Your task to perform on an android device: Open Chrome and go to settings Image 0: 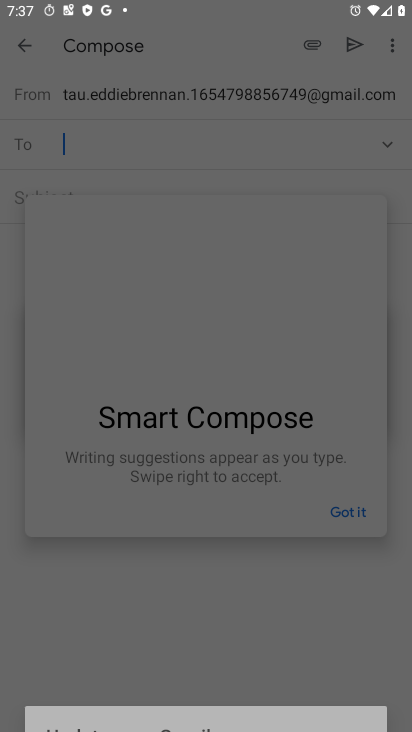
Step 0: press home button
Your task to perform on an android device: Open Chrome and go to settings Image 1: 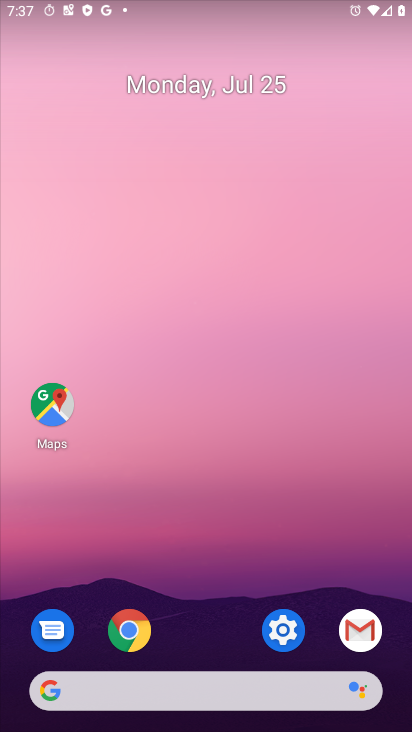
Step 1: click (133, 630)
Your task to perform on an android device: Open Chrome and go to settings Image 2: 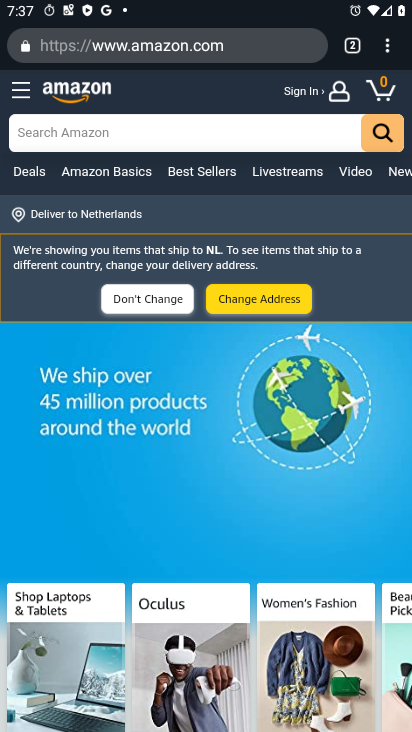
Step 2: click (387, 51)
Your task to perform on an android device: Open Chrome and go to settings Image 3: 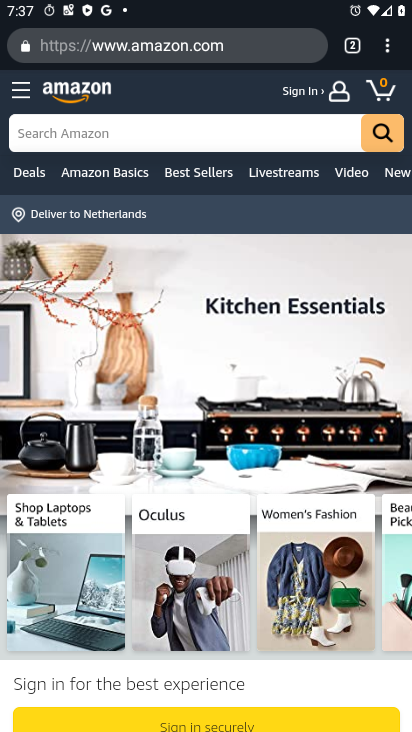
Step 3: click (388, 50)
Your task to perform on an android device: Open Chrome and go to settings Image 4: 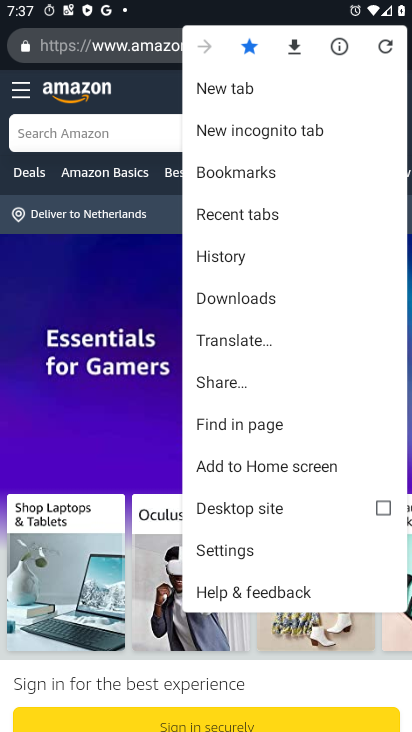
Step 4: click (218, 544)
Your task to perform on an android device: Open Chrome and go to settings Image 5: 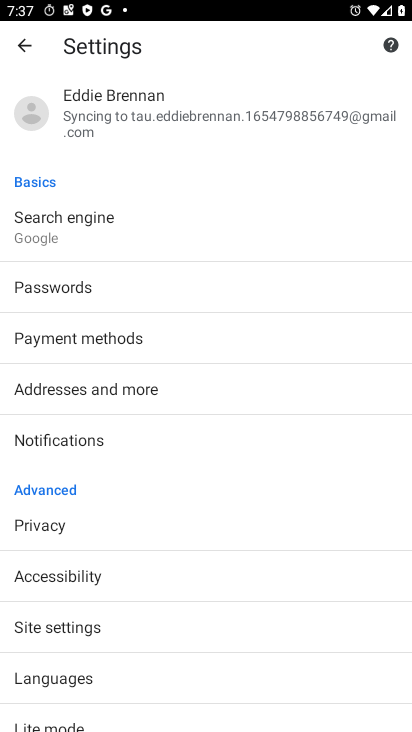
Step 5: task complete